Your task to perform on an android device: Go to CNN.com Image 0: 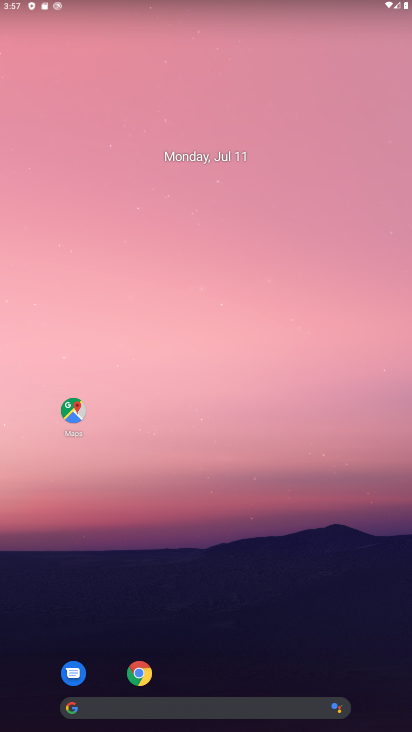
Step 0: click (140, 672)
Your task to perform on an android device: Go to CNN.com Image 1: 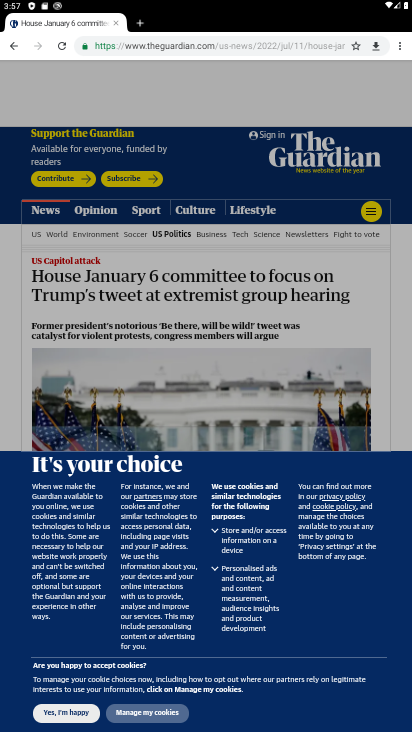
Step 1: click (299, 45)
Your task to perform on an android device: Go to CNN.com Image 2: 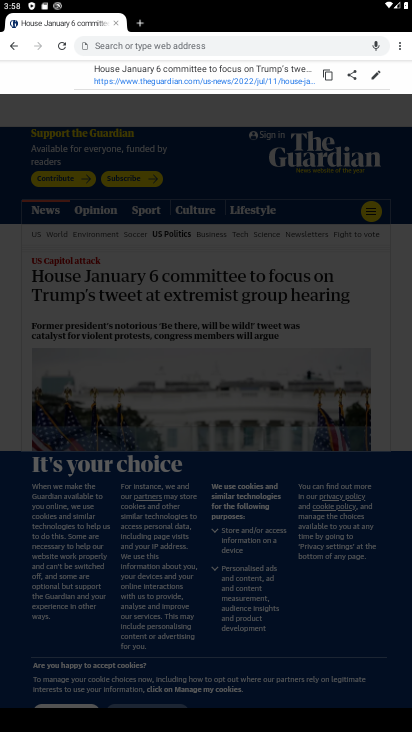
Step 2: type "CNN..com"
Your task to perform on an android device: Go to CNN.com Image 3: 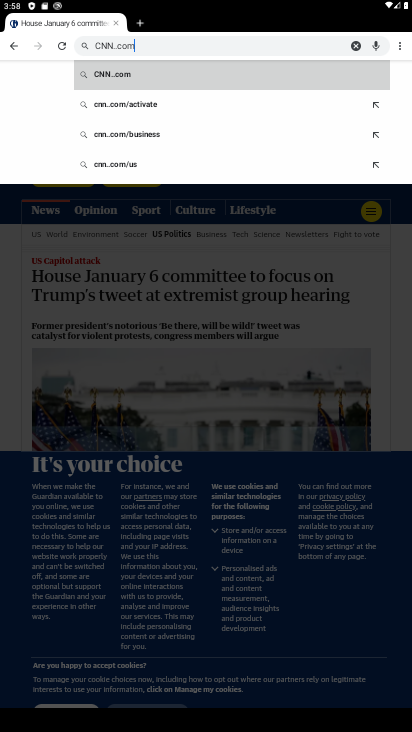
Step 3: click (108, 77)
Your task to perform on an android device: Go to CNN.com Image 4: 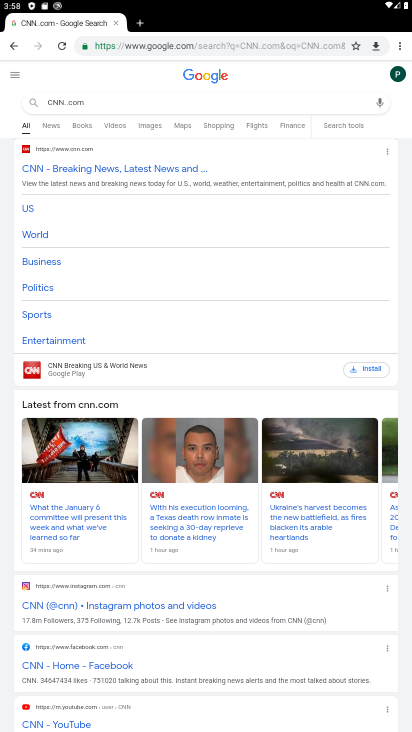
Step 4: click (85, 163)
Your task to perform on an android device: Go to CNN.com Image 5: 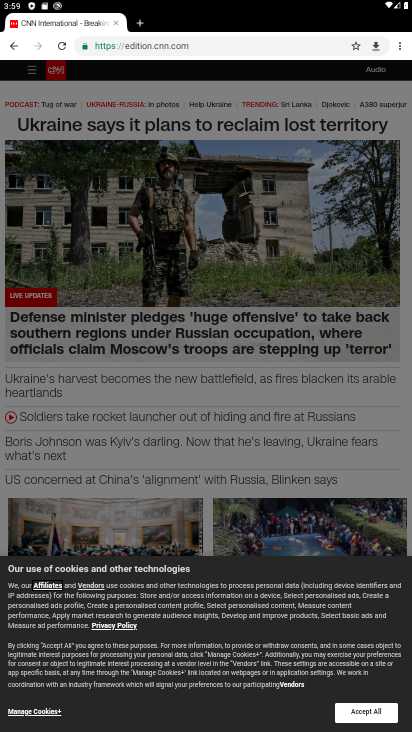
Step 5: click (345, 715)
Your task to perform on an android device: Go to CNN.com Image 6: 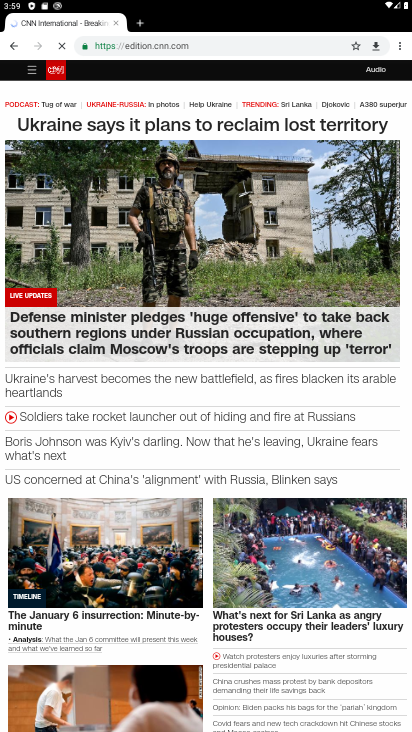
Step 6: task complete